Your task to perform on an android device: Show me recent news Image 0: 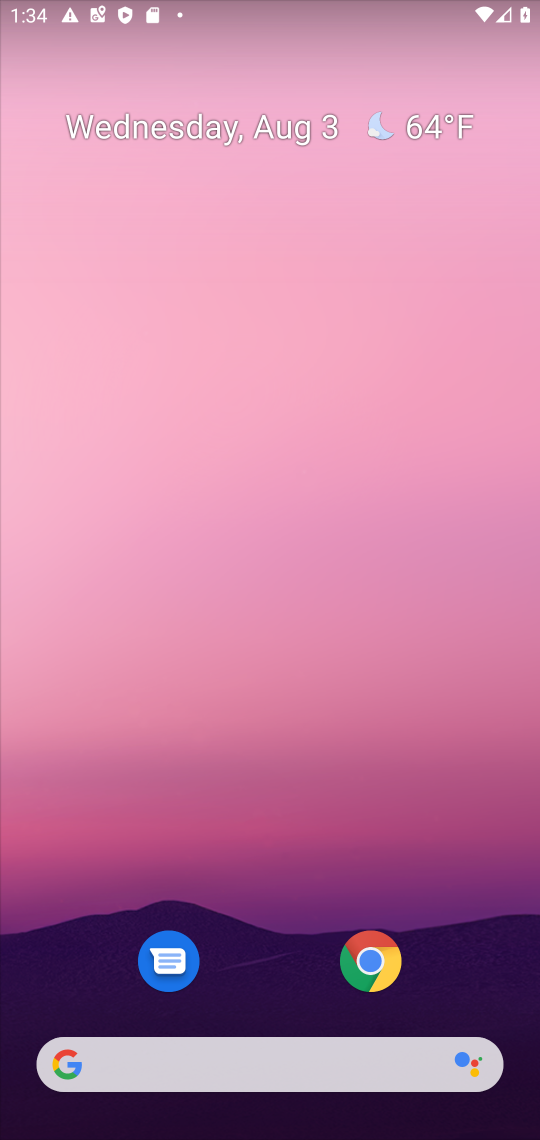
Step 0: click (233, 1052)
Your task to perform on an android device: Show me recent news Image 1: 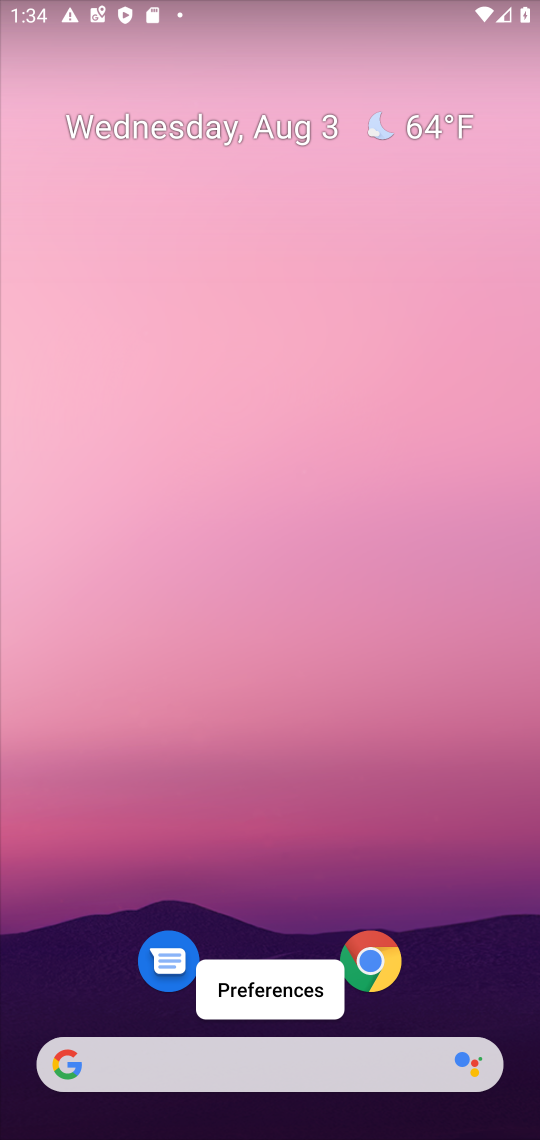
Step 1: click (219, 1066)
Your task to perform on an android device: Show me recent news Image 2: 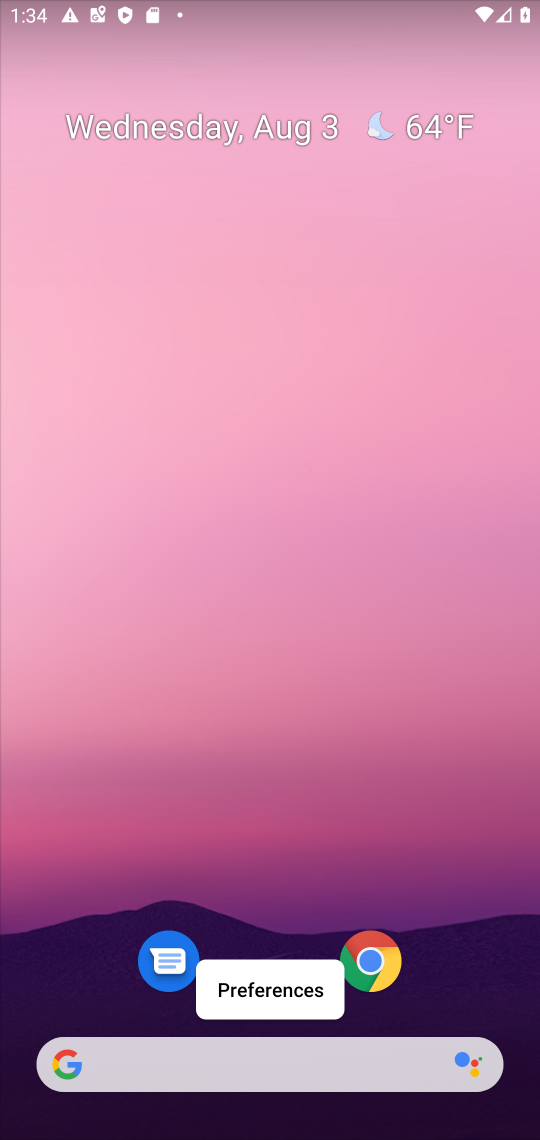
Step 2: click (171, 1069)
Your task to perform on an android device: Show me recent news Image 3: 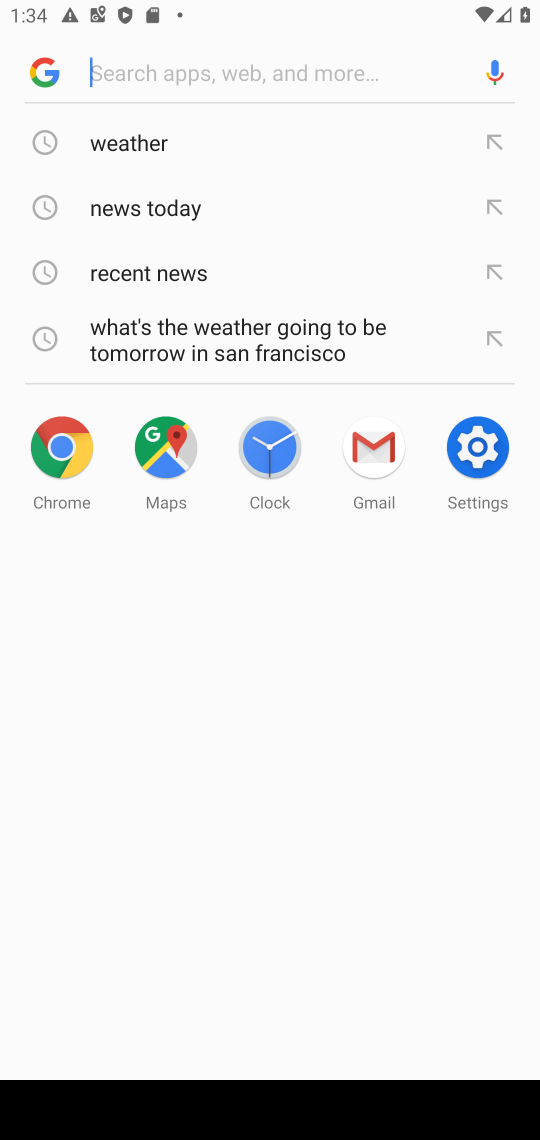
Step 3: click (169, 273)
Your task to perform on an android device: Show me recent news Image 4: 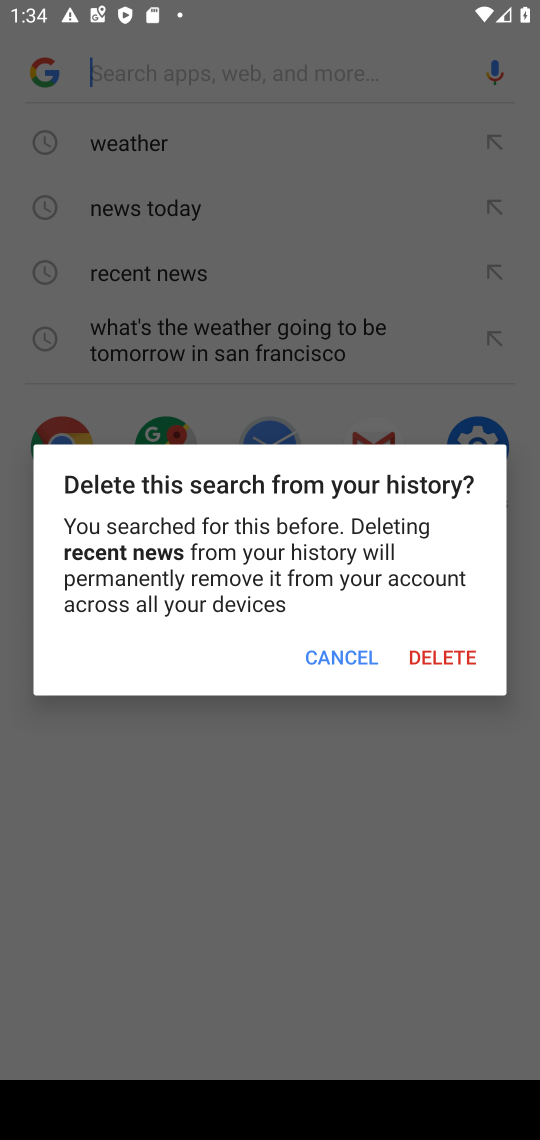
Step 4: click (305, 660)
Your task to perform on an android device: Show me recent news Image 5: 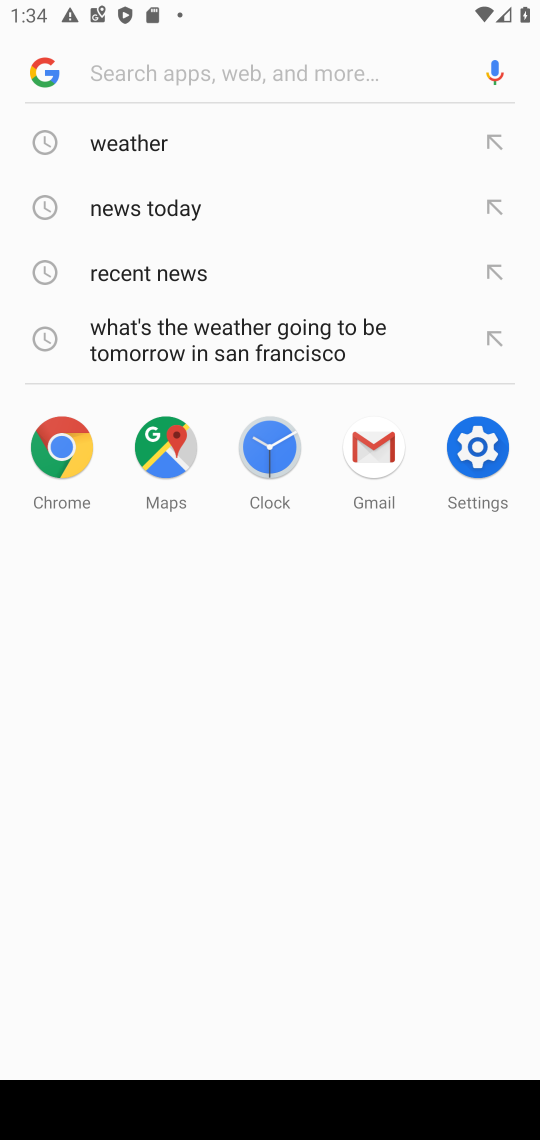
Step 5: click (136, 273)
Your task to perform on an android device: Show me recent news Image 6: 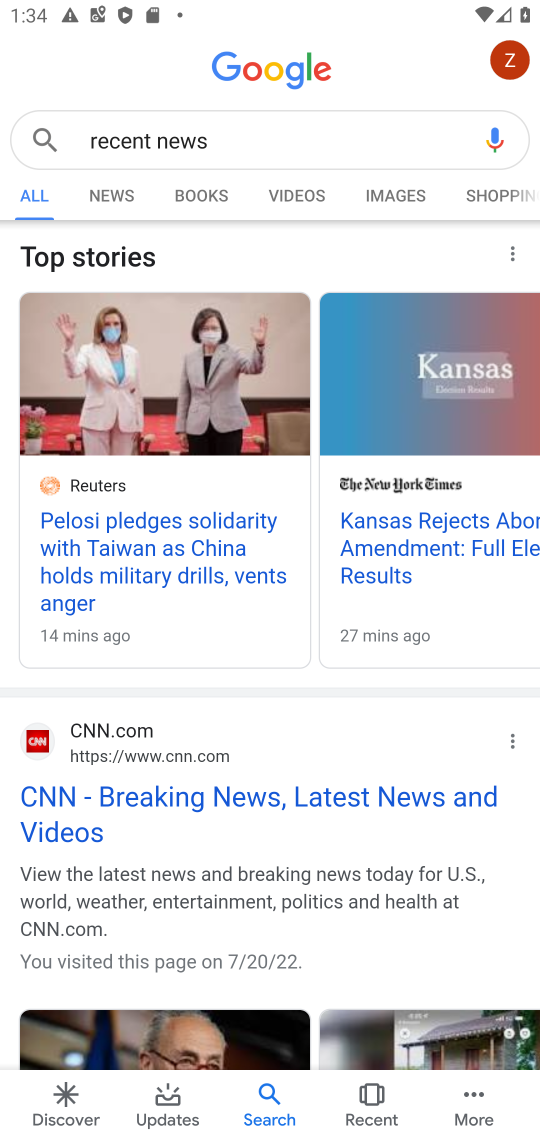
Step 6: click (97, 197)
Your task to perform on an android device: Show me recent news Image 7: 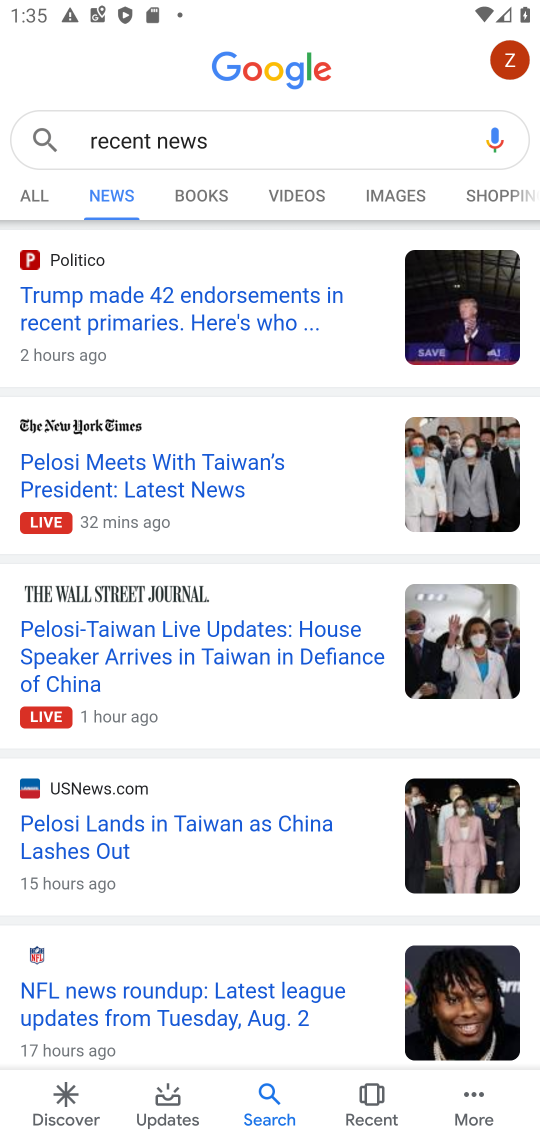
Step 7: click (105, 482)
Your task to perform on an android device: Show me recent news Image 8: 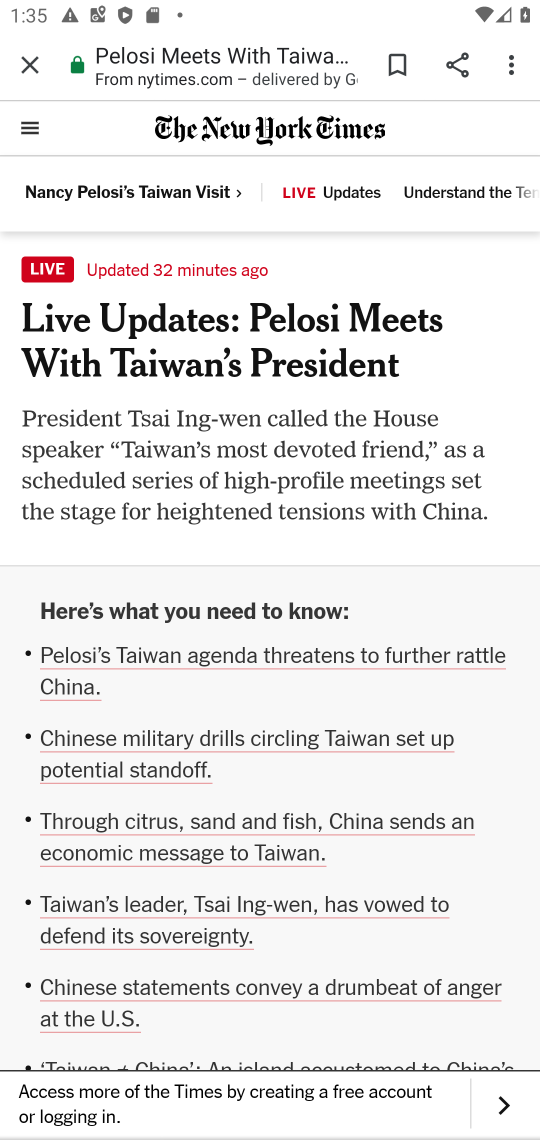
Step 8: task complete